Your task to perform on an android device: Go to CNN.com Image 0: 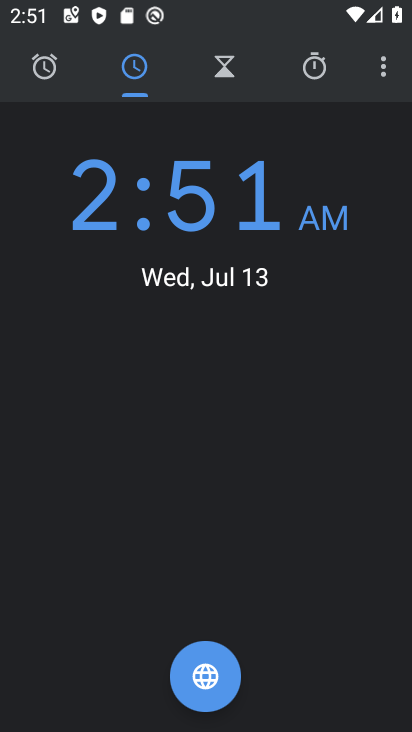
Step 0: press home button
Your task to perform on an android device: Go to CNN.com Image 1: 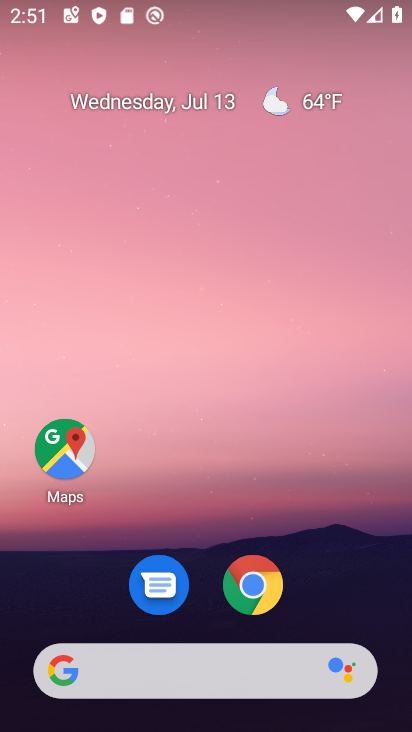
Step 1: click (249, 591)
Your task to perform on an android device: Go to CNN.com Image 2: 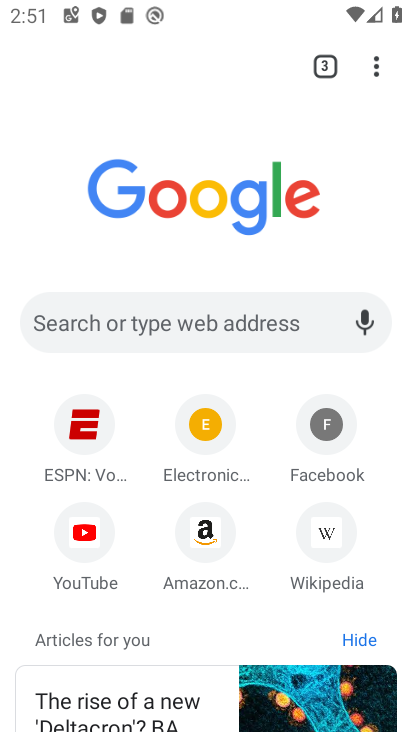
Step 2: click (143, 328)
Your task to perform on an android device: Go to CNN.com Image 3: 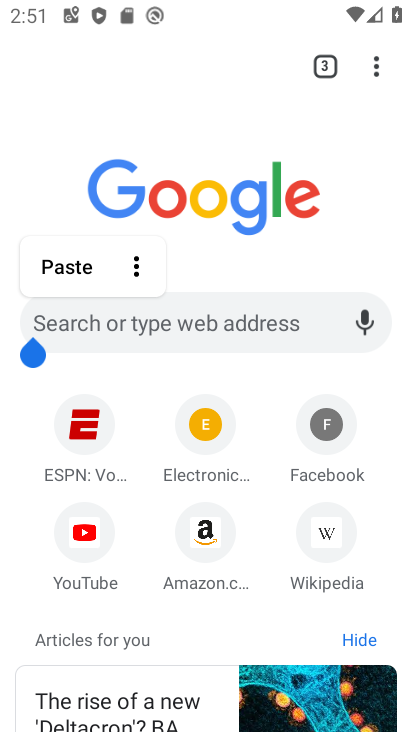
Step 3: click (152, 321)
Your task to perform on an android device: Go to CNN.com Image 4: 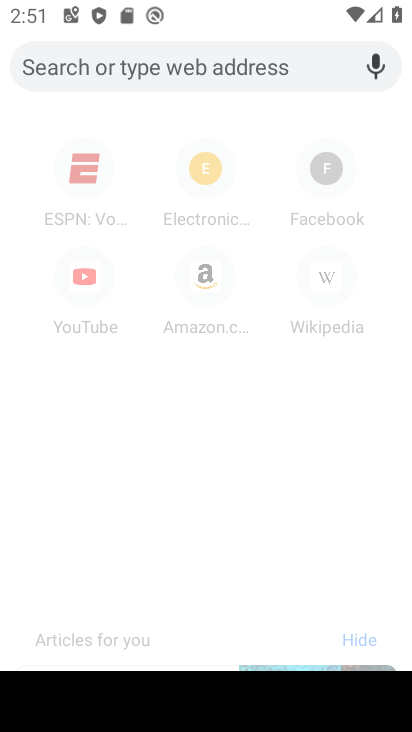
Step 4: type "cnn.com"
Your task to perform on an android device: Go to CNN.com Image 5: 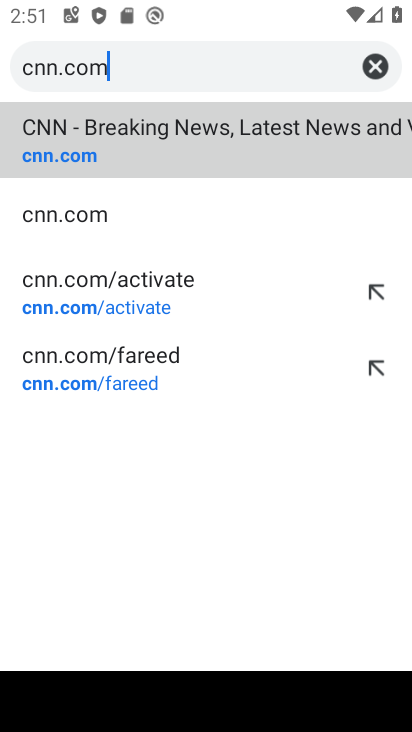
Step 5: click (158, 142)
Your task to perform on an android device: Go to CNN.com Image 6: 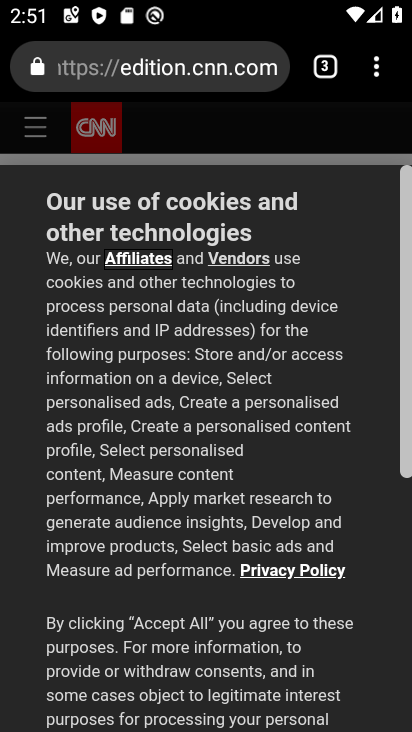
Step 6: drag from (208, 590) to (305, 180)
Your task to perform on an android device: Go to CNN.com Image 7: 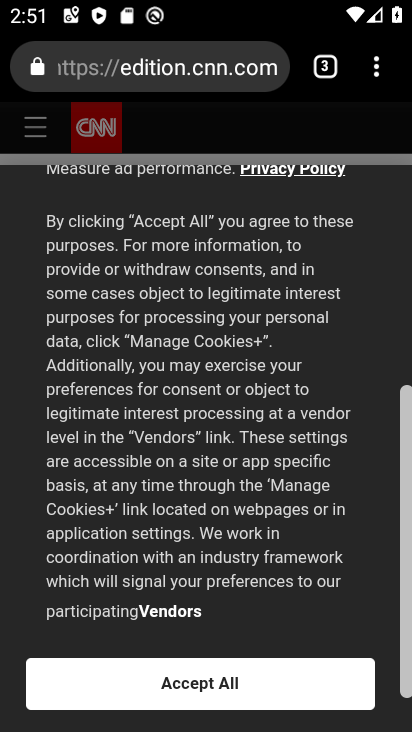
Step 7: click (225, 686)
Your task to perform on an android device: Go to CNN.com Image 8: 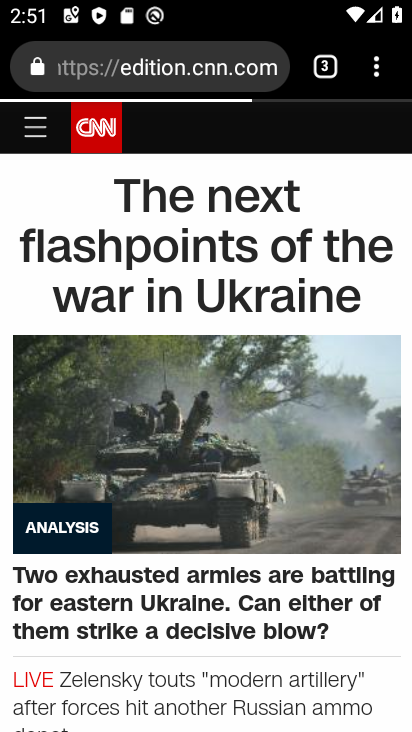
Step 8: task complete